Your task to perform on an android device: toggle priority inbox in the gmail app Image 0: 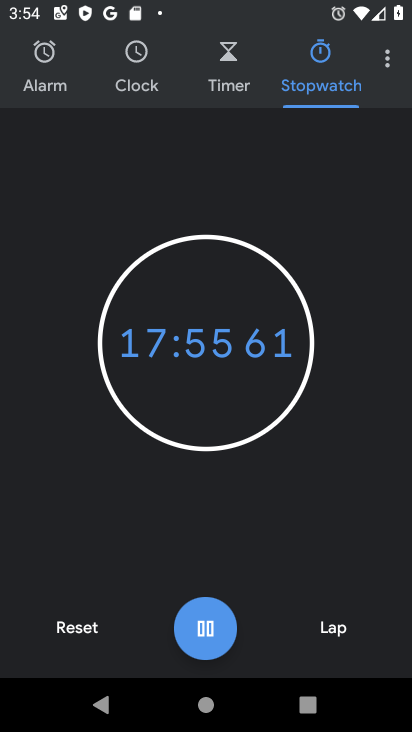
Step 0: press home button
Your task to perform on an android device: toggle priority inbox in the gmail app Image 1: 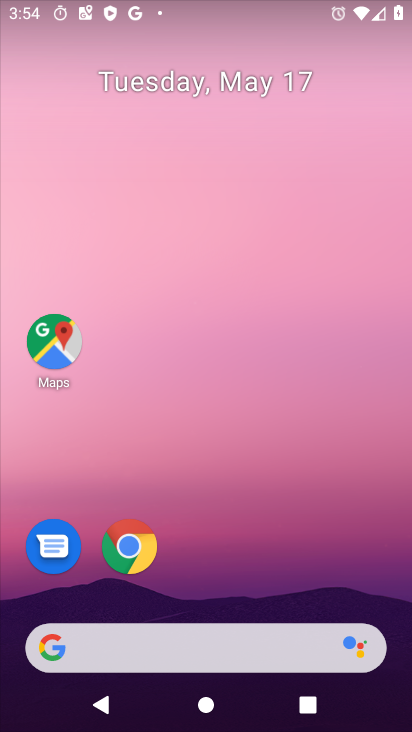
Step 1: drag from (405, 683) to (386, 385)
Your task to perform on an android device: toggle priority inbox in the gmail app Image 2: 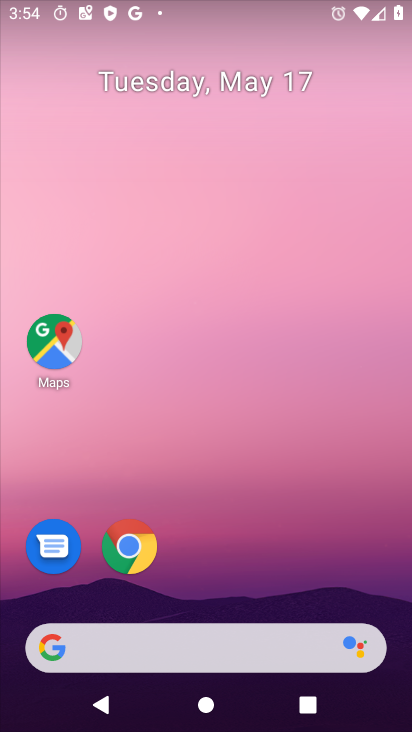
Step 2: drag from (397, 710) to (325, 260)
Your task to perform on an android device: toggle priority inbox in the gmail app Image 3: 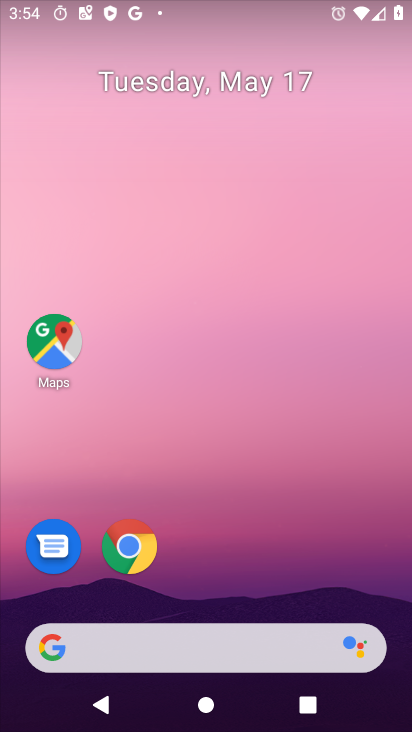
Step 3: drag from (400, 723) to (346, 160)
Your task to perform on an android device: toggle priority inbox in the gmail app Image 4: 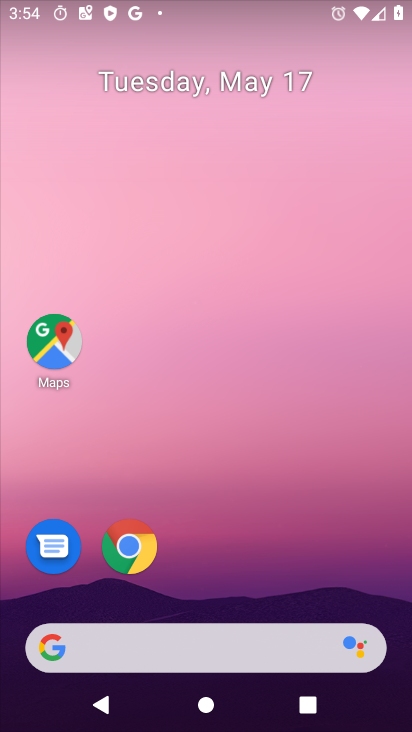
Step 4: drag from (387, 709) to (362, 177)
Your task to perform on an android device: toggle priority inbox in the gmail app Image 5: 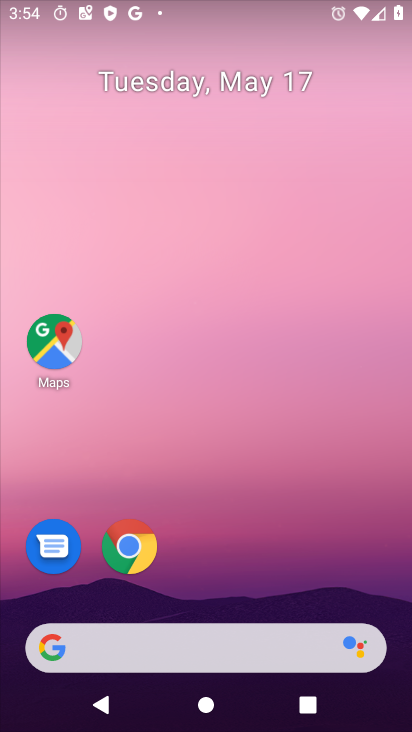
Step 5: drag from (409, 534) to (362, 116)
Your task to perform on an android device: toggle priority inbox in the gmail app Image 6: 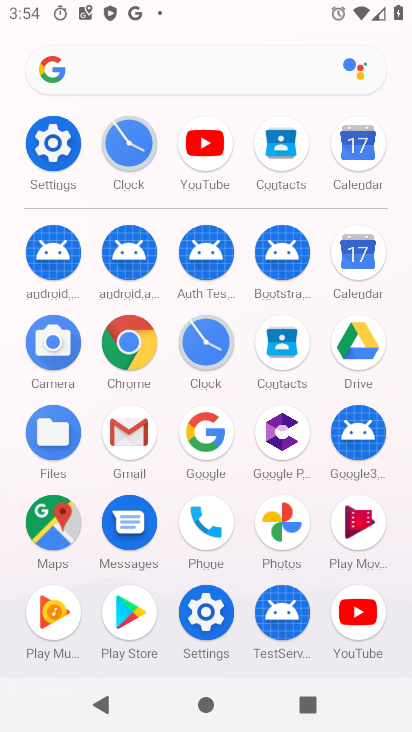
Step 6: click (124, 436)
Your task to perform on an android device: toggle priority inbox in the gmail app Image 7: 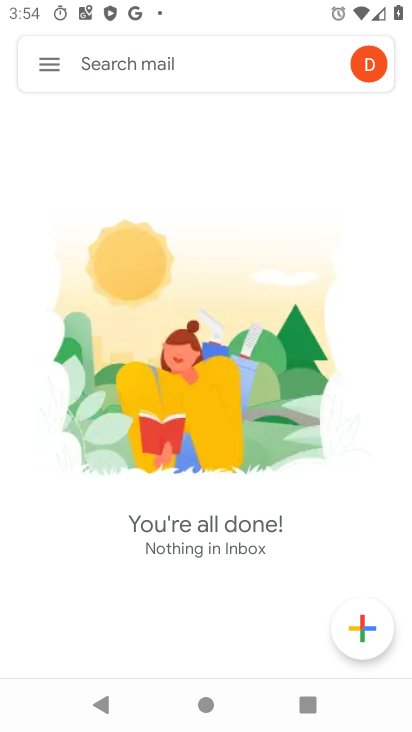
Step 7: click (44, 70)
Your task to perform on an android device: toggle priority inbox in the gmail app Image 8: 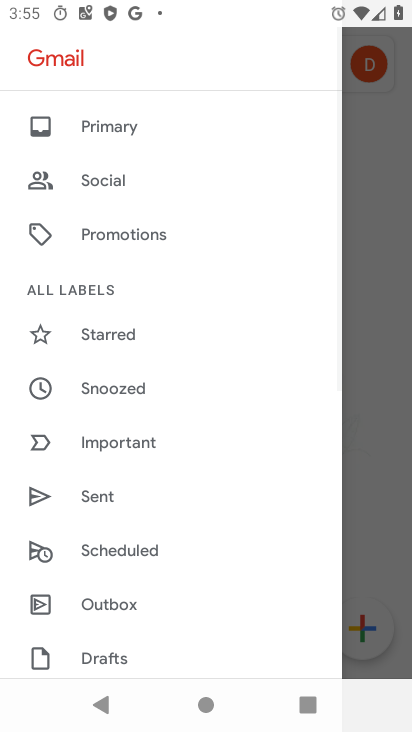
Step 8: drag from (208, 617) to (184, 250)
Your task to perform on an android device: toggle priority inbox in the gmail app Image 9: 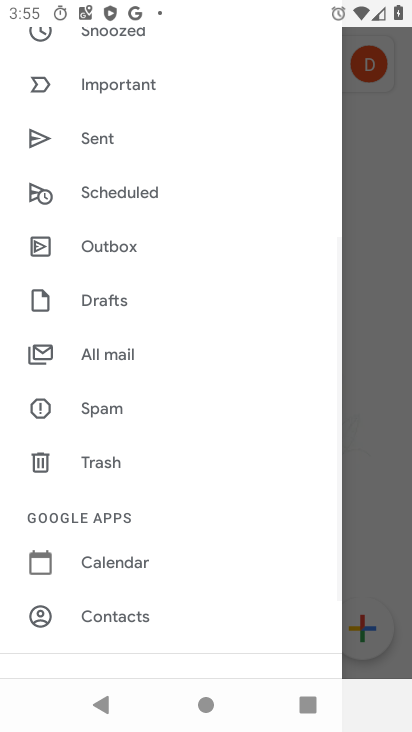
Step 9: drag from (187, 512) to (198, 323)
Your task to perform on an android device: toggle priority inbox in the gmail app Image 10: 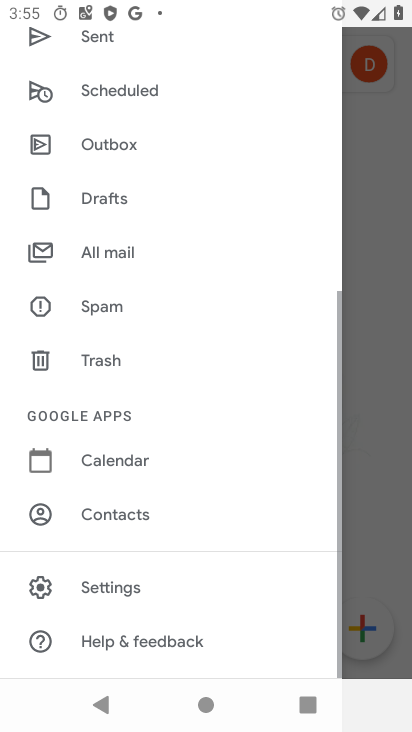
Step 10: click (119, 572)
Your task to perform on an android device: toggle priority inbox in the gmail app Image 11: 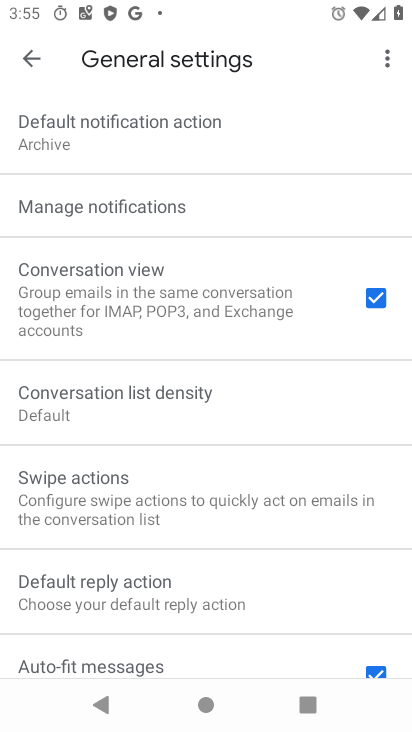
Step 11: drag from (213, 123) to (279, 414)
Your task to perform on an android device: toggle priority inbox in the gmail app Image 12: 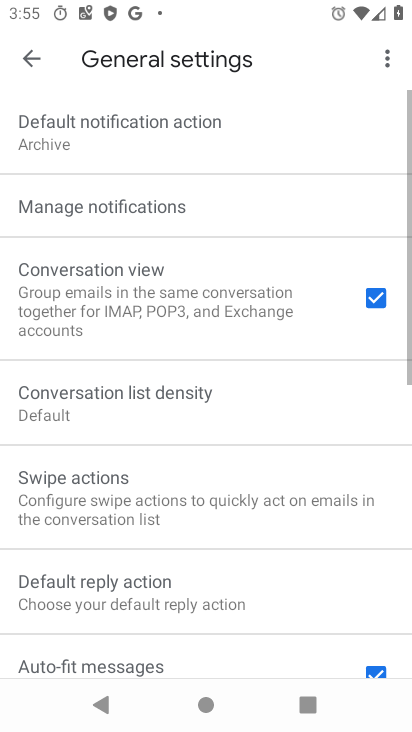
Step 12: click (27, 56)
Your task to perform on an android device: toggle priority inbox in the gmail app Image 13: 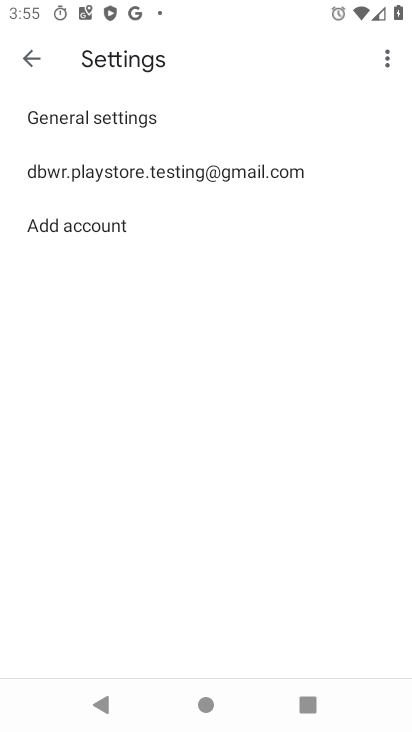
Step 13: click (59, 167)
Your task to perform on an android device: toggle priority inbox in the gmail app Image 14: 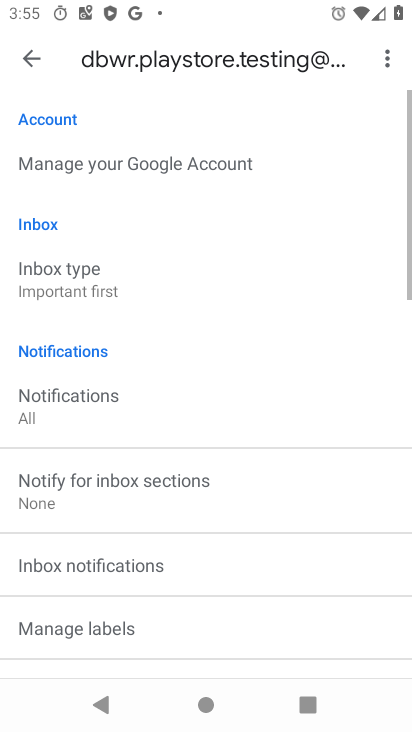
Step 14: click (74, 278)
Your task to perform on an android device: toggle priority inbox in the gmail app Image 15: 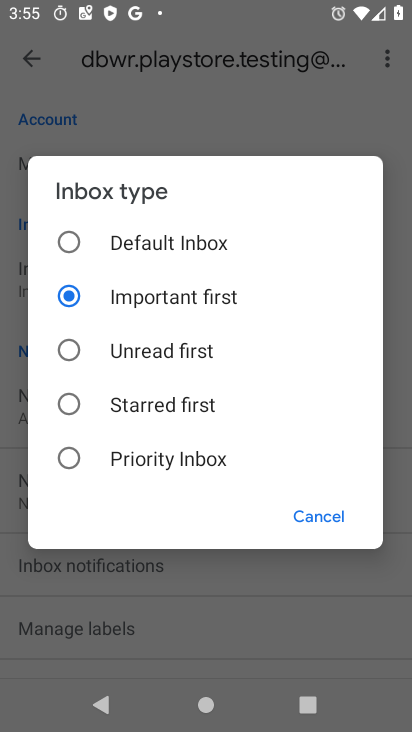
Step 15: click (69, 464)
Your task to perform on an android device: toggle priority inbox in the gmail app Image 16: 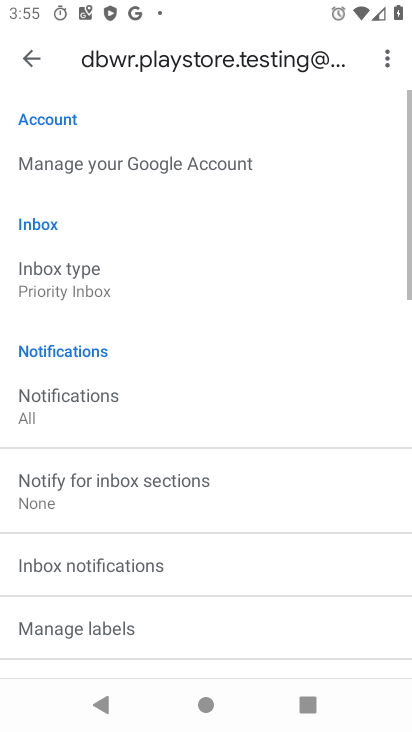
Step 16: task complete